Your task to perform on an android device: open chrome privacy settings Image 0: 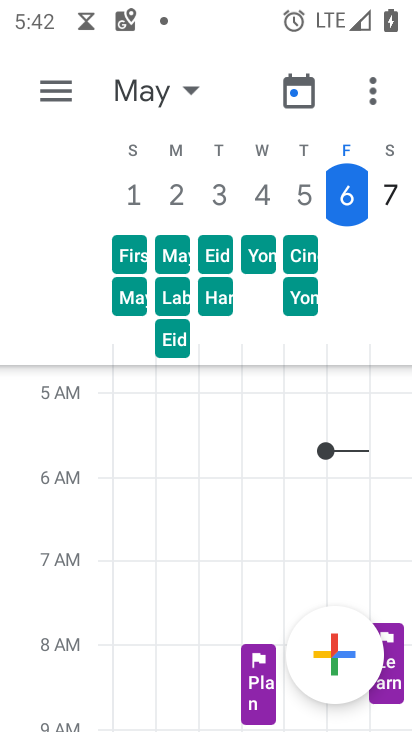
Step 0: press home button
Your task to perform on an android device: open chrome privacy settings Image 1: 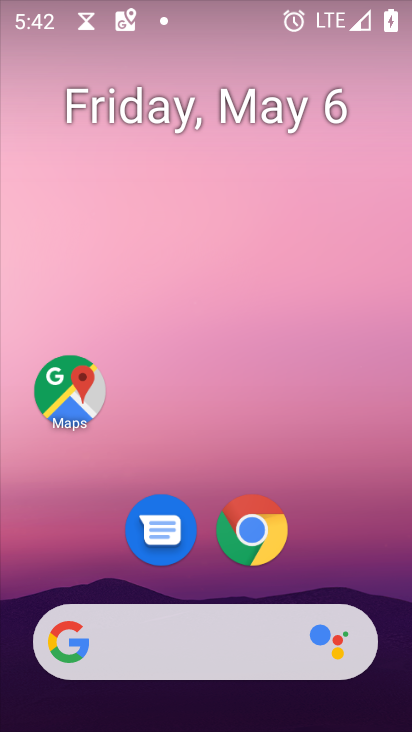
Step 1: click (264, 539)
Your task to perform on an android device: open chrome privacy settings Image 2: 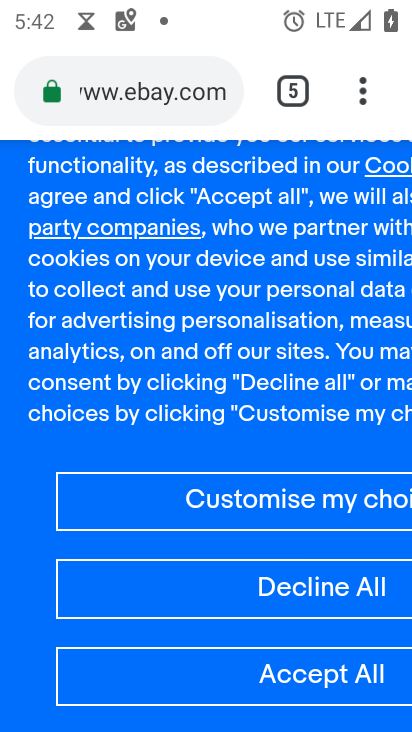
Step 2: click (356, 87)
Your task to perform on an android device: open chrome privacy settings Image 3: 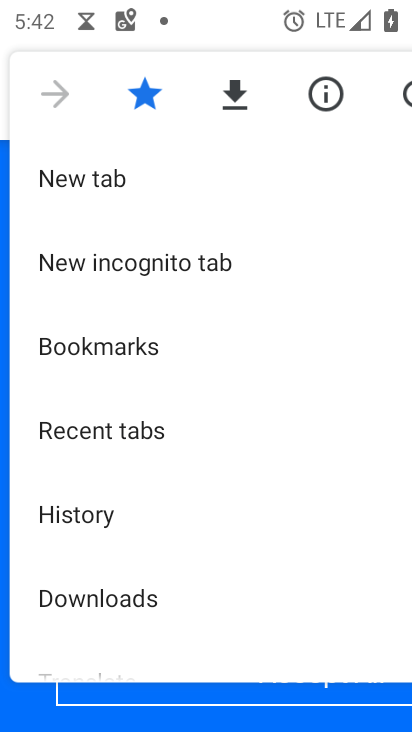
Step 3: drag from (228, 538) to (181, 49)
Your task to perform on an android device: open chrome privacy settings Image 4: 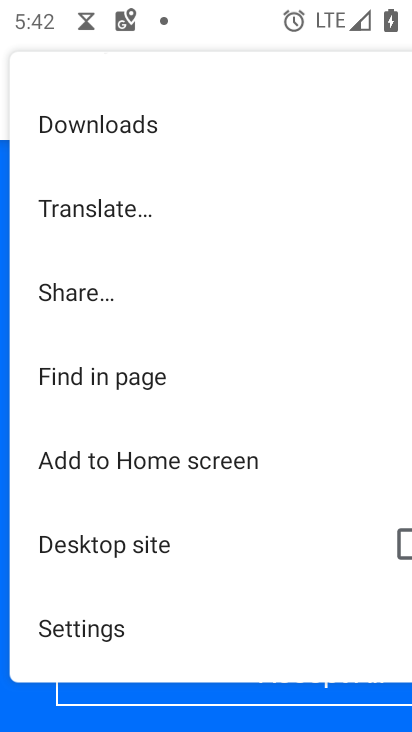
Step 4: click (123, 622)
Your task to perform on an android device: open chrome privacy settings Image 5: 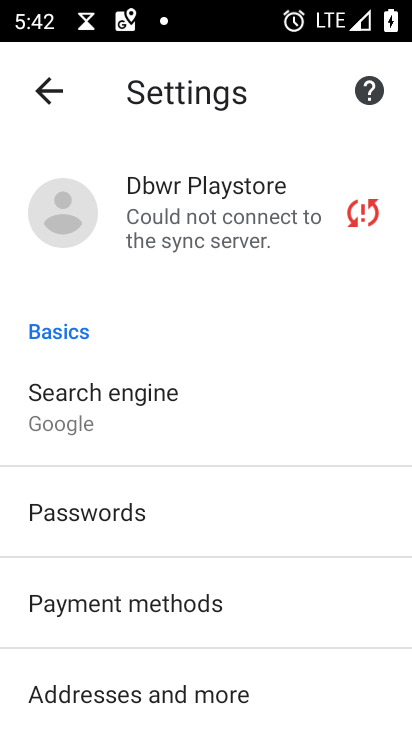
Step 5: drag from (283, 661) to (203, 186)
Your task to perform on an android device: open chrome privacy settings Image 6: 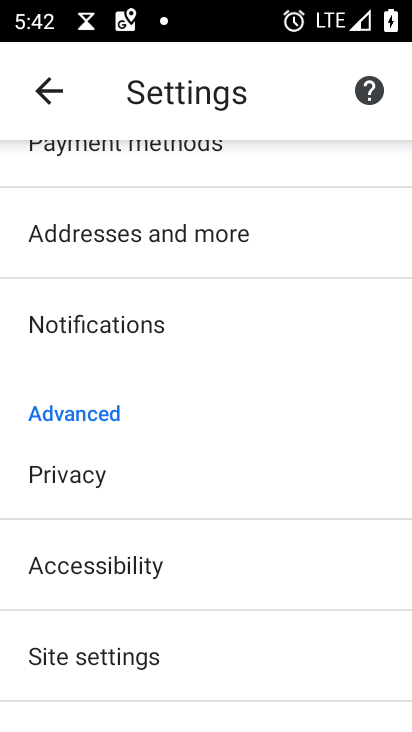
Step 6: click (110, 470)
Your task to perform on an android device: open chrome privacy settings Image 7: 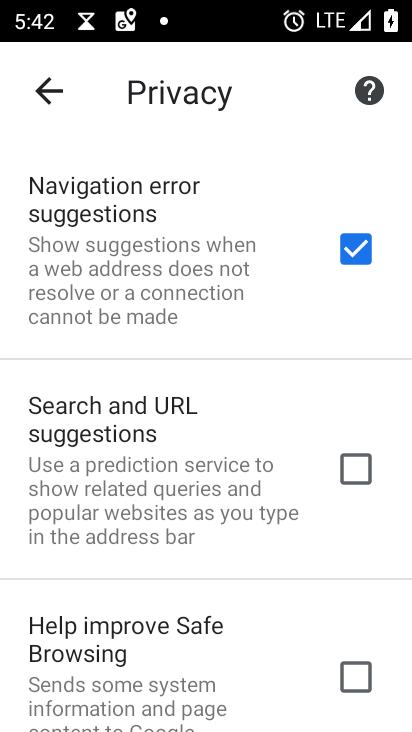
Step 7: task complete